Your task to perform on an android device: Open ESPN.com Image 0: 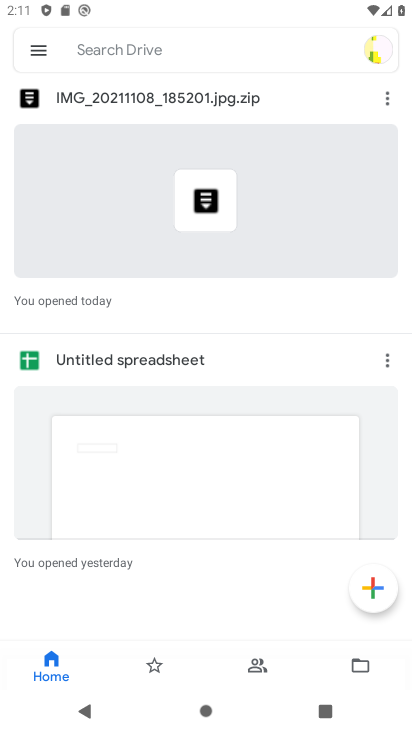
Step 0: press home button
Your task to perform on an android device: Open ESPN.com Image 1: 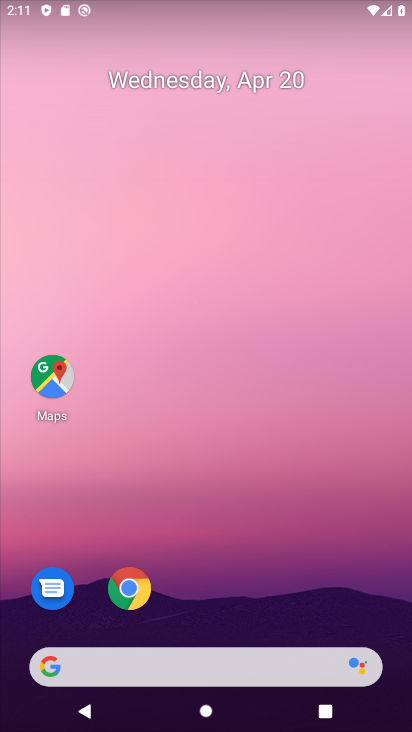
Step 1: click (127, 590)
Your task to perform on an android device: Open ESPN.com Image 2: 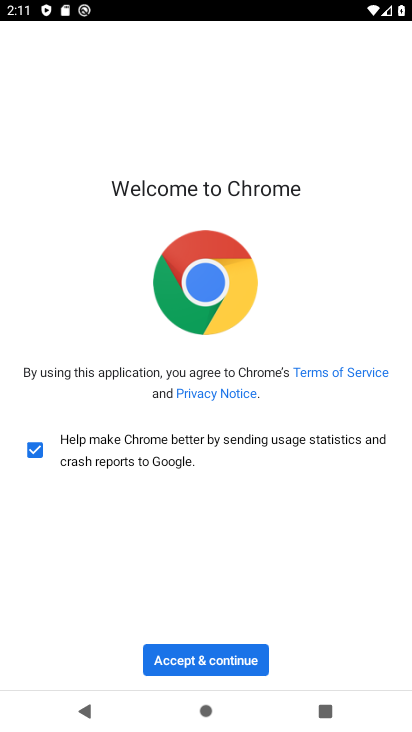
Step 2: click (183, 662)
Your task to perform on an android device: Open ESPN.com Image 3: 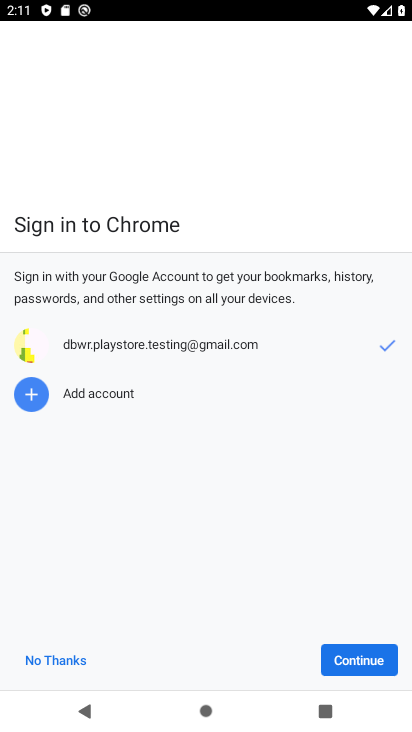
Step 3: click (342, 664)
Your task to perform on an android device: Open ESPN.com Image 4: 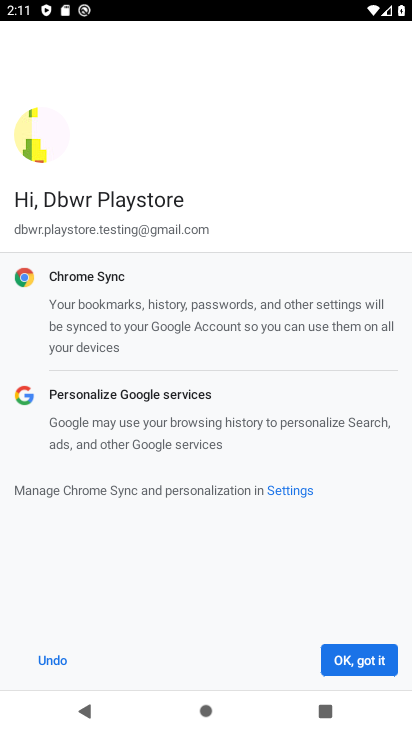
Step 4: click (360, 662)
Your task to perform on an android device: Open ESPN.com Image 5: 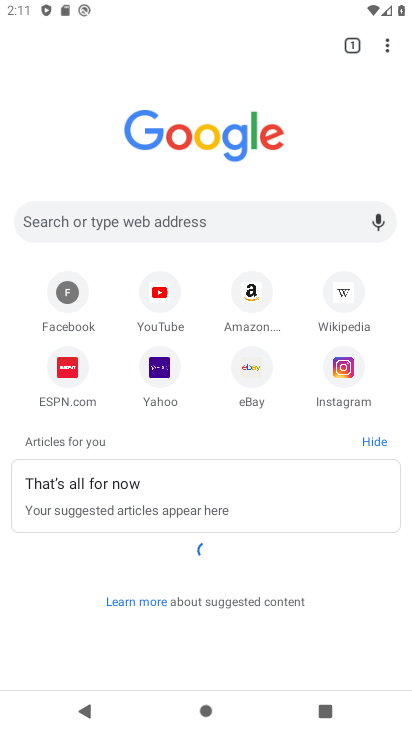
Step 5: click (75, 376)
Your task to perform on an android device: Open ESPN.com Image 6: 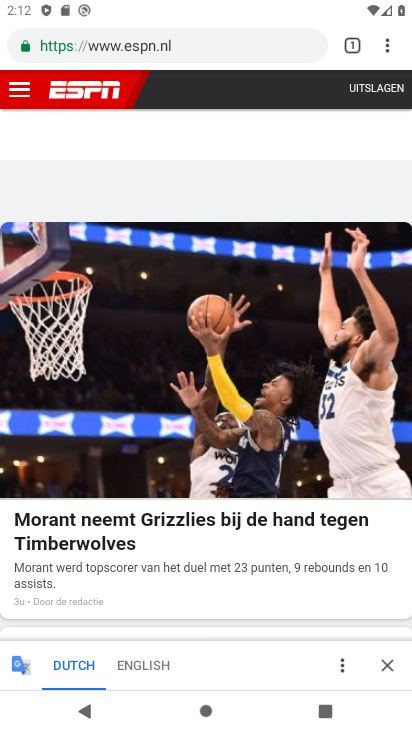
Step 6: task complete